Your task to perform on an android device: Open internet settings Image 0: 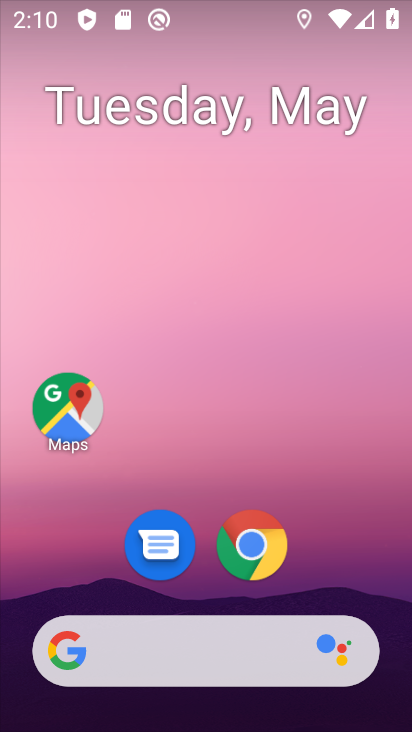
Step 0: drag from (205, 582) to (303, 41)
Your task to perform on an android device: Open internet settings Image 1: 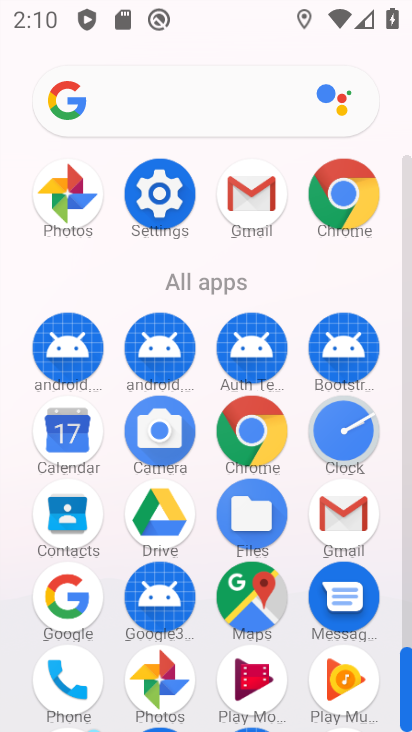
Step 1: click (162, 191)
Your task to perform on an android device: Open internet settings Image 2: 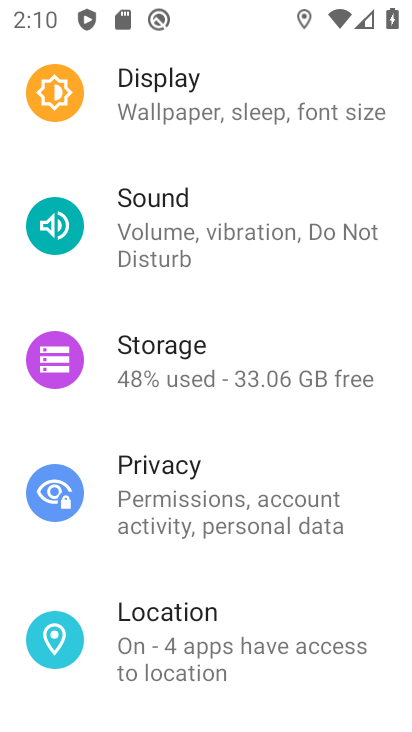
Step 2: drag from (277, 96) to (290, 637)
Your task to perform on an android device: Open internet settings Image 3: 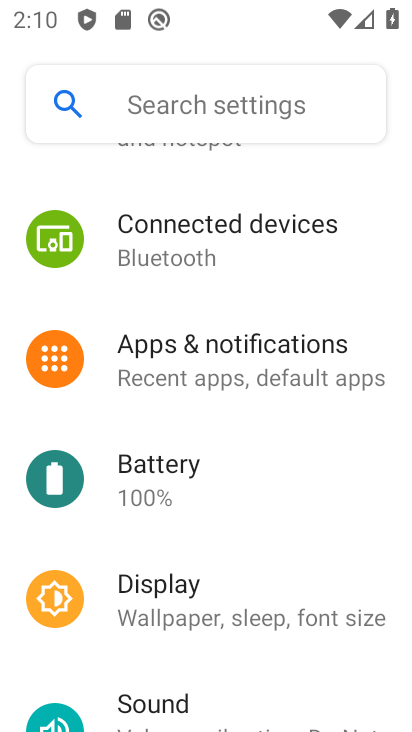
Step 3: drag from (271, 202) to (262, 624)
Your task to perform on an android device: Open internet settings Image 4: 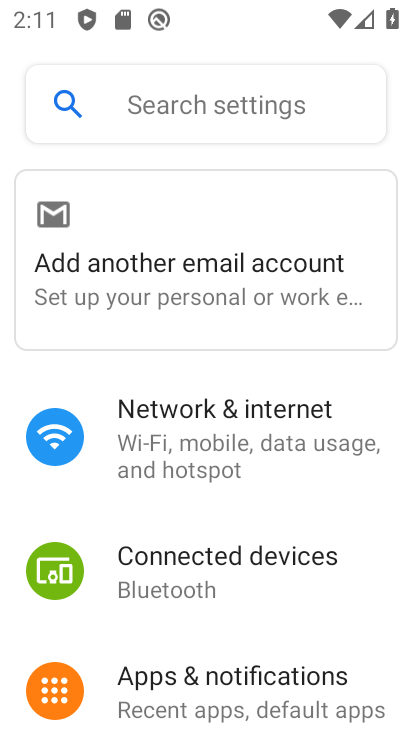
Step 4: click (264, 427)
Your task to perform on an android device: Open internet settings Image 5: 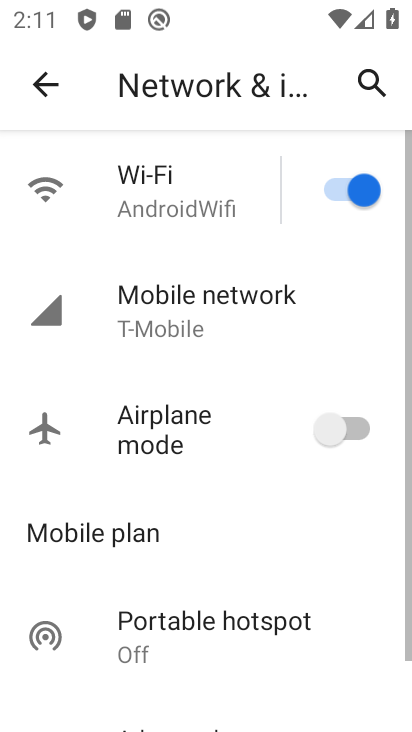
Step 5: task complete